Your task to perform on an android device: Open Wikipedia Image 0: 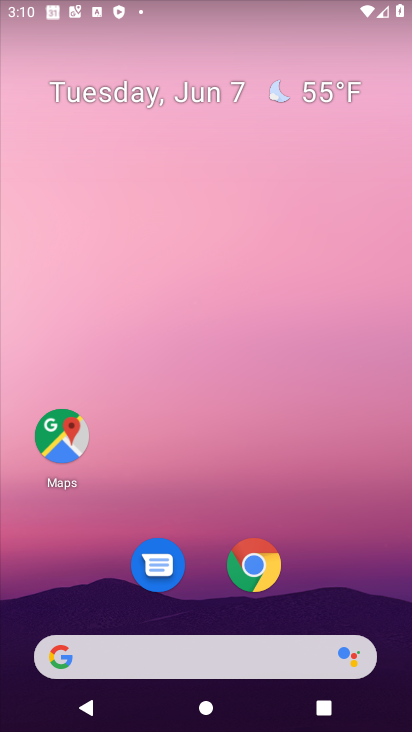
Step 0: drag from (280, 660) to (337, 8)
Your task to perform on an android device: Open Wikipedia Image 1: 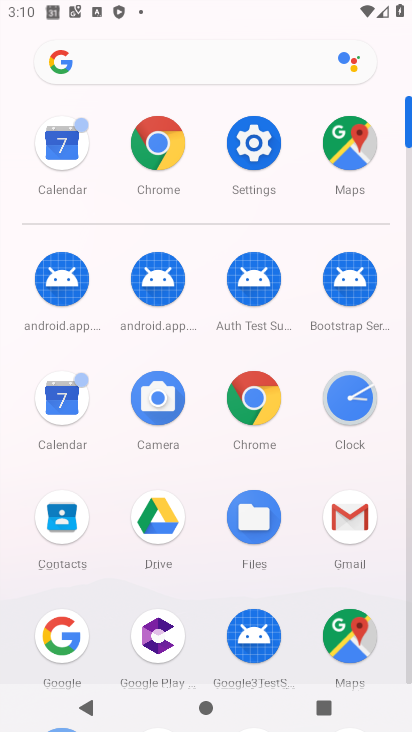
Step 1: click (250, 414)
Your task to perform on an android device: Open Wikipedia Image 2: 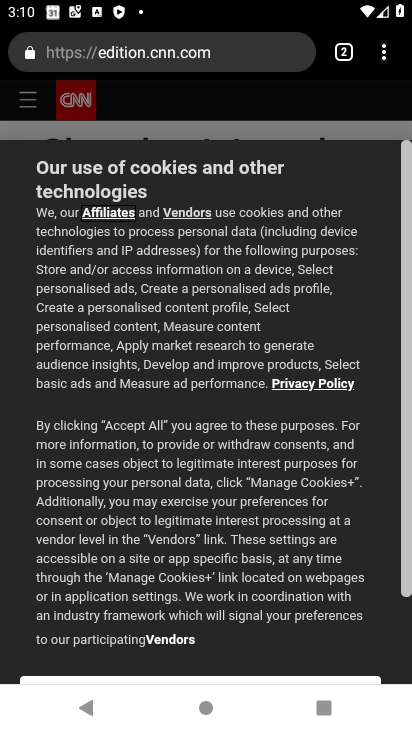
Step 2: drag from (391, 47) to (274, 105)
Your task to perform on an android device: Open Wikipedia Image 3: 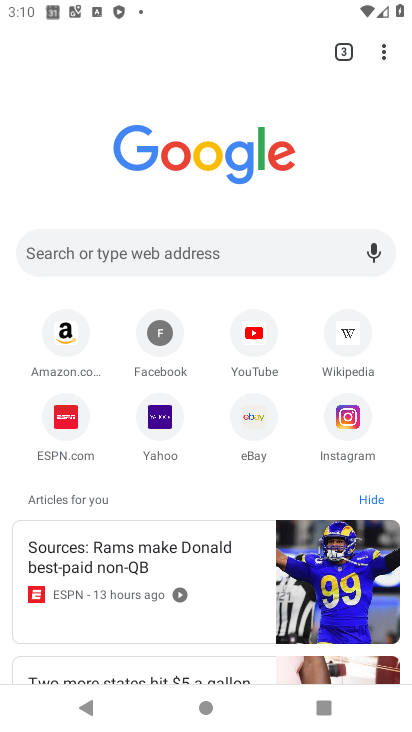
Step 3: click (349, 338)
Your task to perform on an android device: Open Wikipedia Image 4: 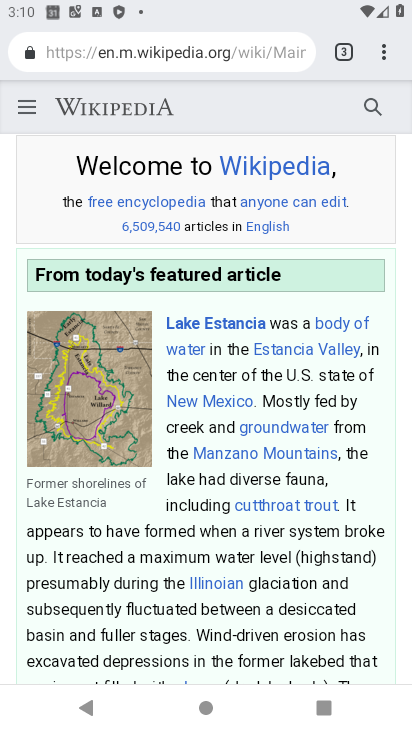
Step 4: task complete